Your task to perform on an android device: Open Yahoo.com Image 0: 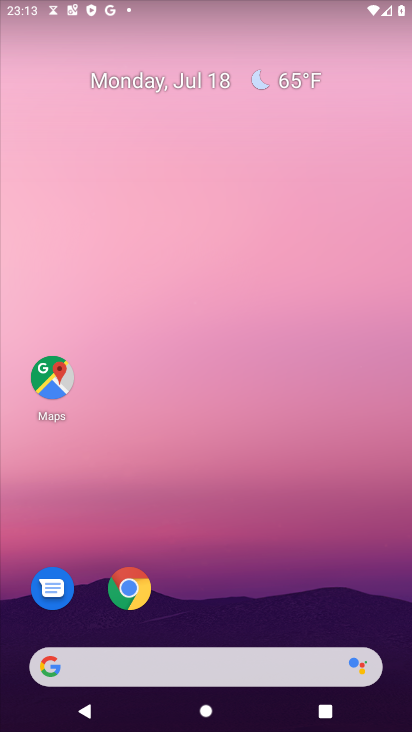
Step 0: click (128, 589)
Your task to perform on an android device: Open Yahoo.com Image 1: 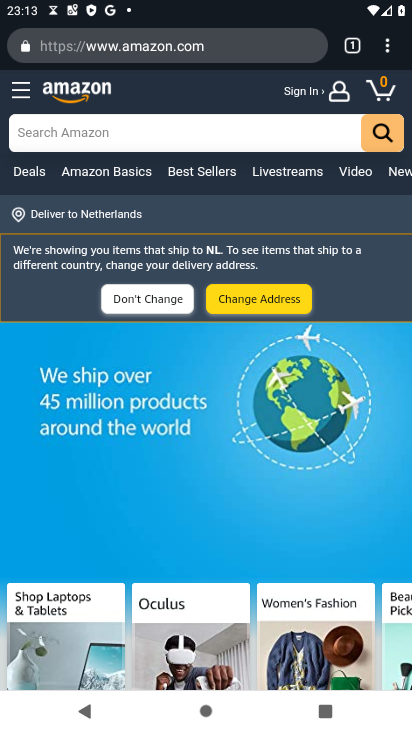
Step 1: click (243, 49)
Your task to perform on an android device: Open Yahoo.com Image 2: 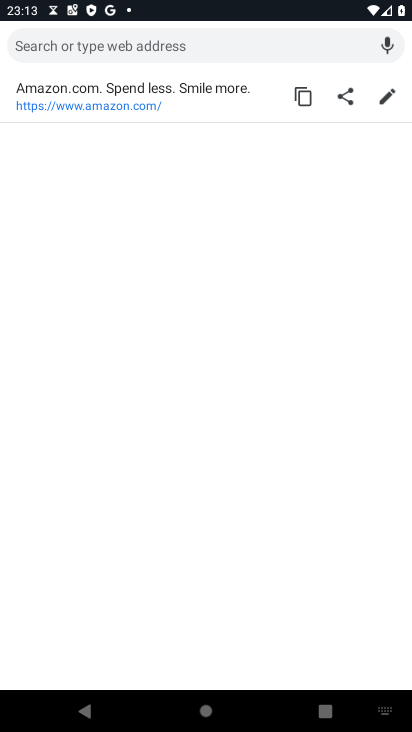
Step 2: type "Yahoo.com"
Your task to perform on an android device: Open Yahoo.com Image 3: 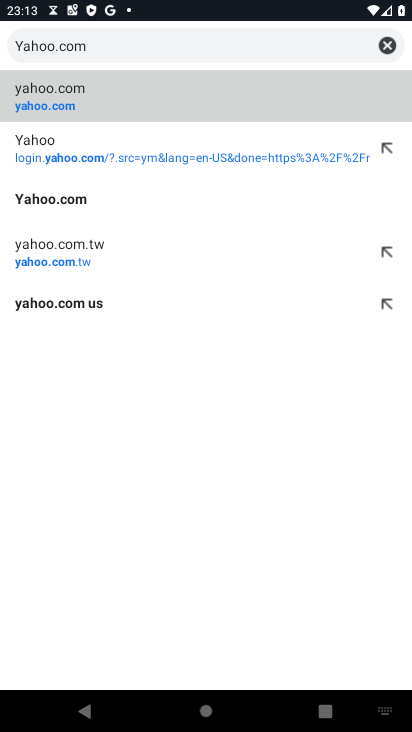
Step 3: click (59, 203)
Your task to perform on an android device: Open Yahoo.com Image 4: 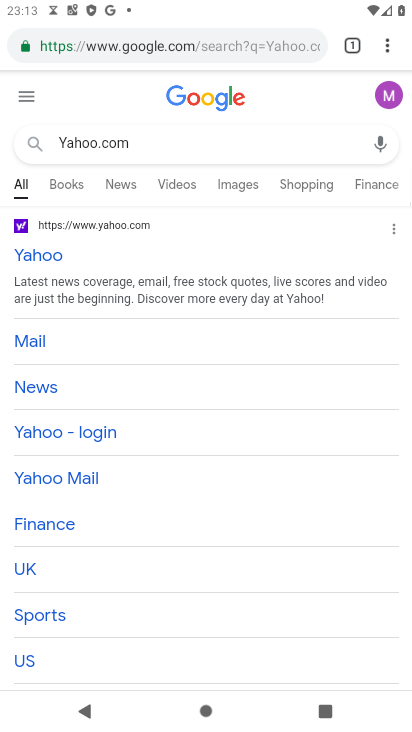
Step 4: click (62, 258)
Your task to perform on an android device: Open Yahoo.com Image 5: 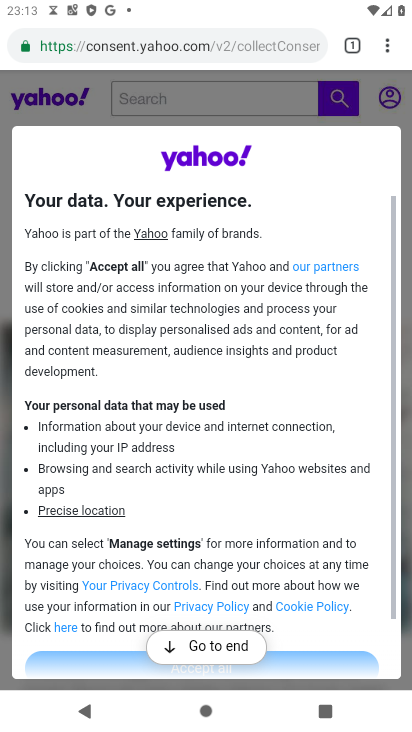
Step 5: click (227, 646)
Your task to perform on an android device: Open Yahoo.com Image 6: 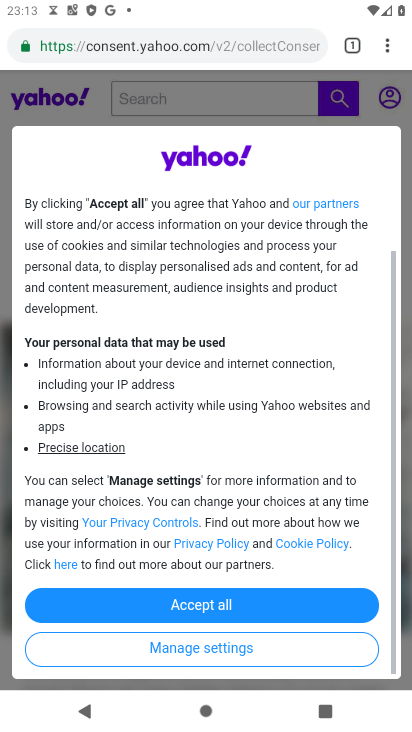
Step 6: click (213, 605)
Your task to perform on an android device: Open Yahoo.com Image 7: 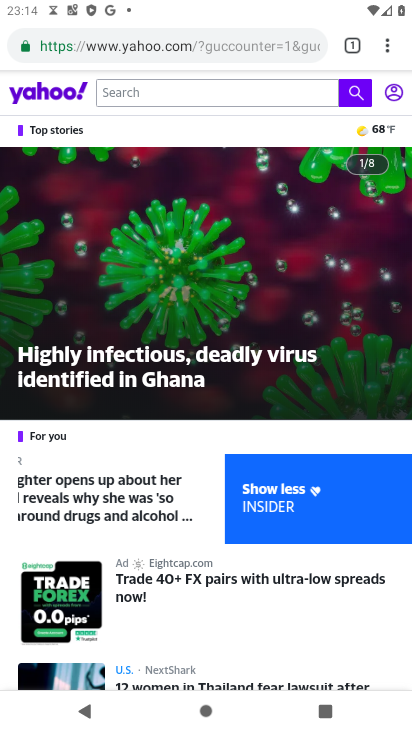
Step 7: task complete